Your task to perform on an android device: toggle improve location accuracy Image 0: 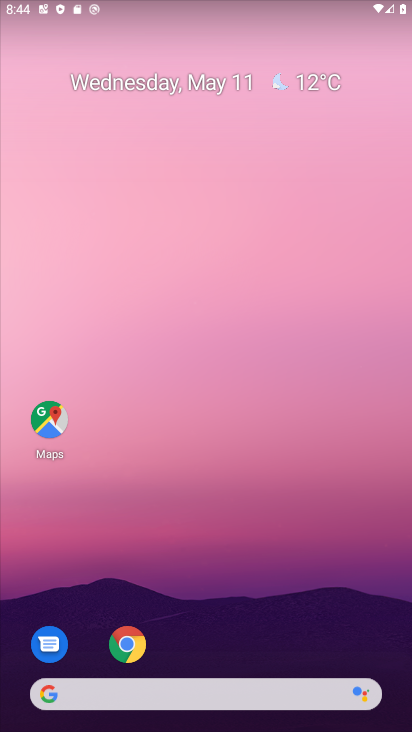
Step 0: drag from (194, 631) to (134, 132)
Your task to perform on an android device: toggle improve location accuracy Image 1: 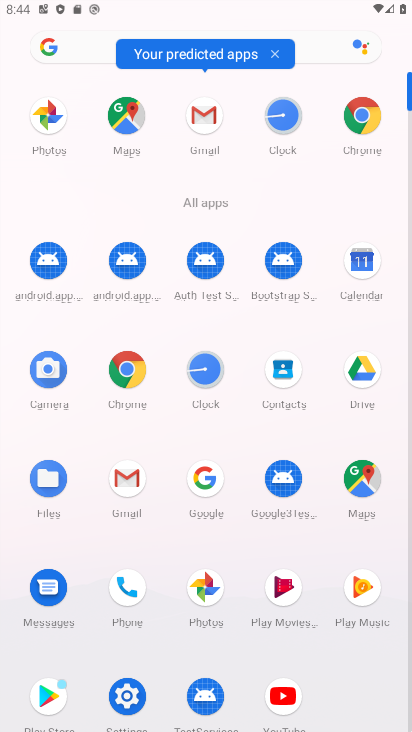
Step 1: click (106, 696)
Your task to perform on an android device: toggle improve location accuracy Image 2: 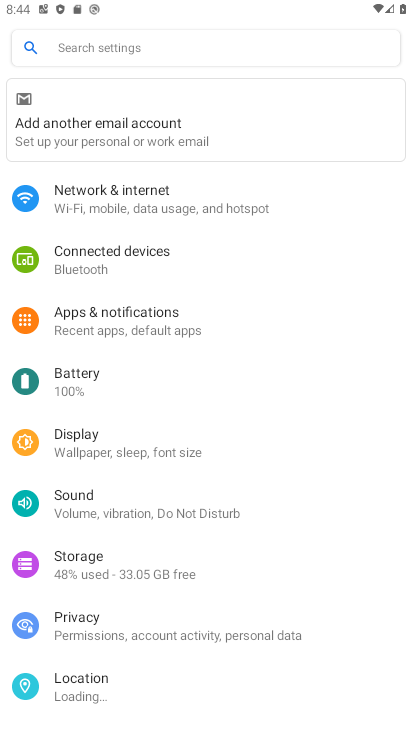
Step 2: click (89, 689)
Your task to perform on an android device: toggle improve location accuracy Image 3: 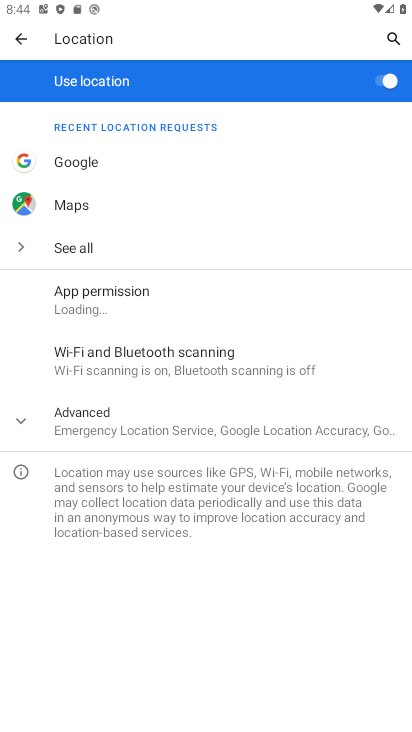
Step 3: click (155, 431)
Your task to perform on an android device: toggle improve location accuracy Image 4: 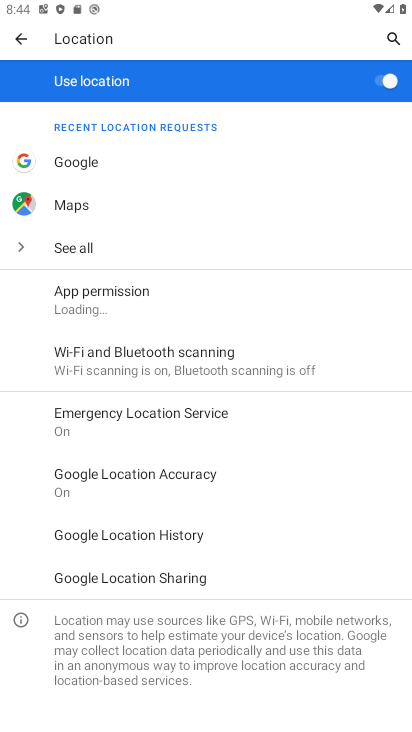
Step 4: click (91, 483)
Your task to perform on an android device: toggle improve location accuracy Image 5: 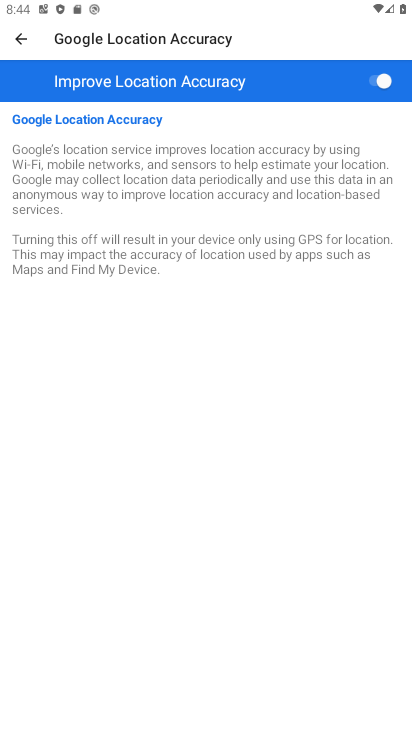
Step 5: click (373, 82)
Your task to perform on an android device: toggle improve location accuracy Image 6: 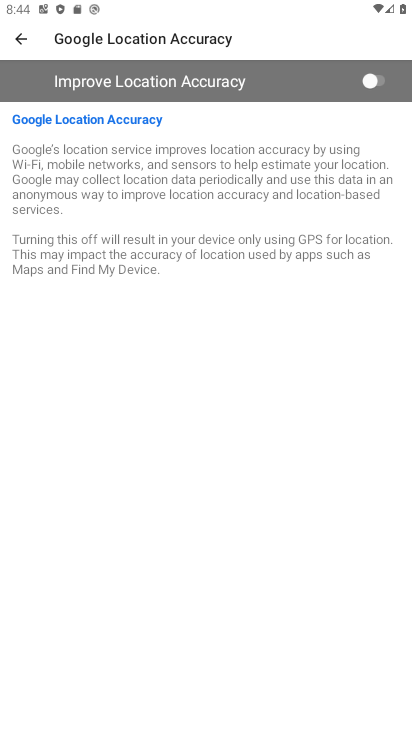
Step 6: task complete